Your task to perform on an android device: What's the weather today? Image 0: 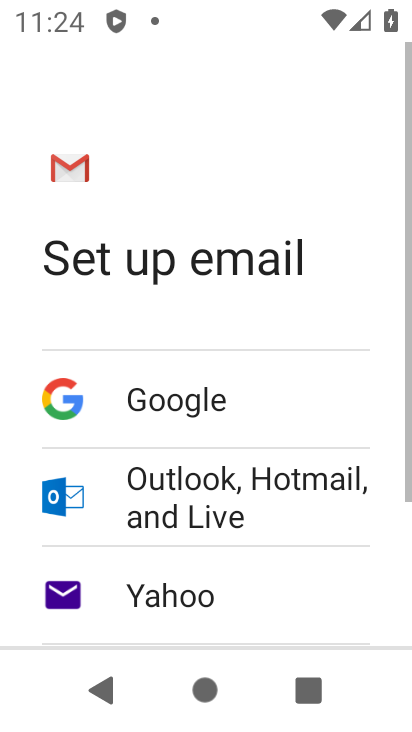
Step 0: press home button
Your task to perform on an android device: What's the weather today? Image 1: 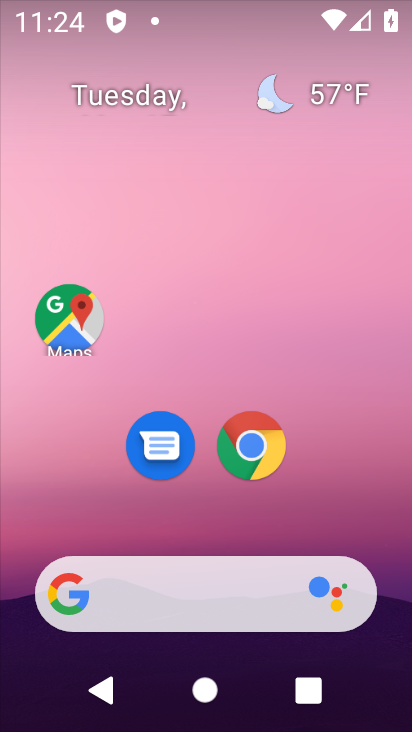
Step 1: click (232, 593)
Your task to perform on an android device: What's the weather today? Image 2: 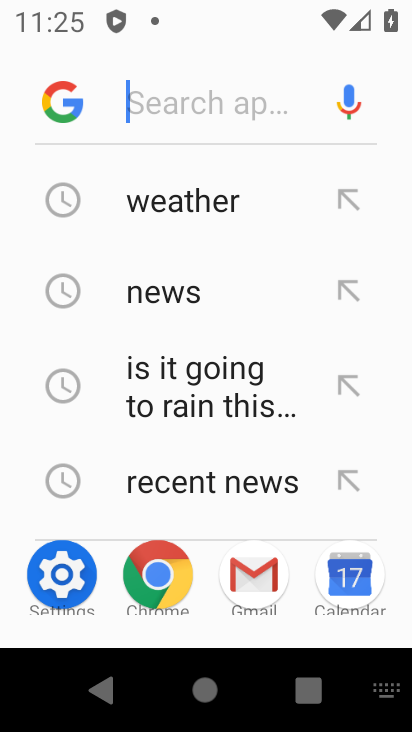
Step 2: click (227, 220)
Your task to perform on an android device: What's the weather today? Image 3: 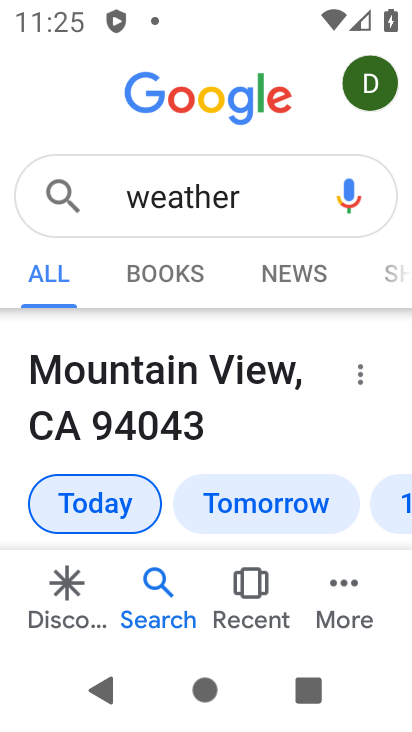
Step 3: task complete